Your task to perform on an android device: Open internet settings Image 0: 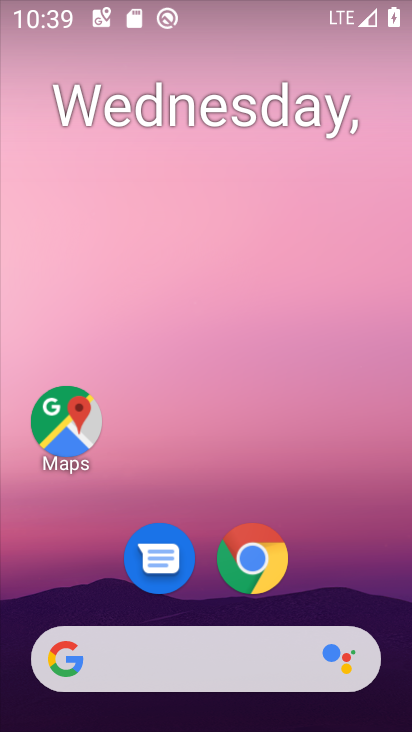
Step 0: drag from (35, 701) to (235, 123)
Your task to perform on an android device: Open internet settings Image 1: 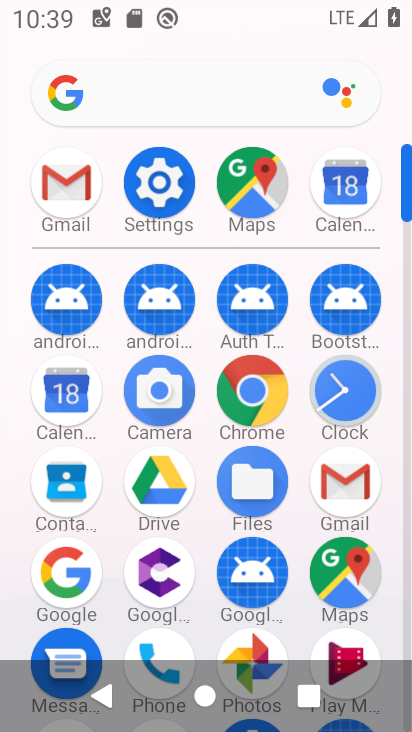
Step 1: click (155, 175)
Your task to perform on an android device: Open internet settings Image 2: 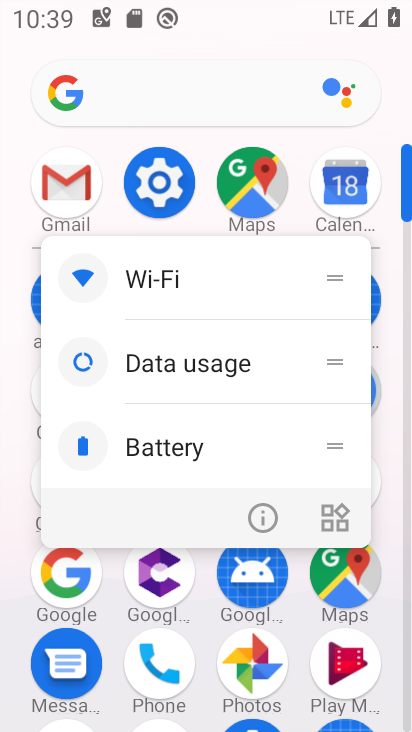
Step 2: click (165, 190)
Your task to perform on an android device: Open internet settings Image 3: 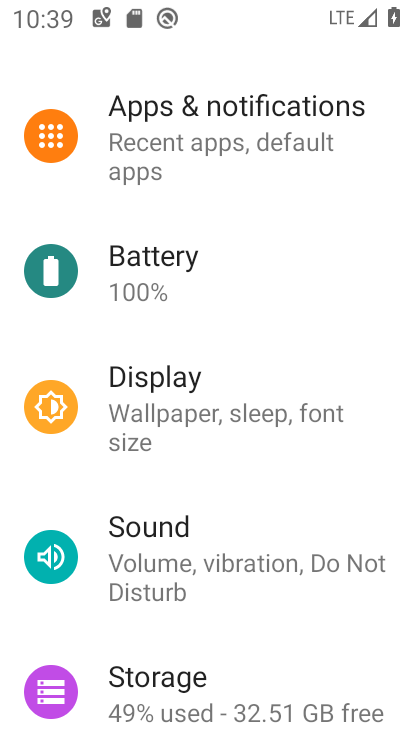
Step 3: drag from (169, 149) to (115, 611)
Your task to perform on an android device: Open internet settings Image 4: 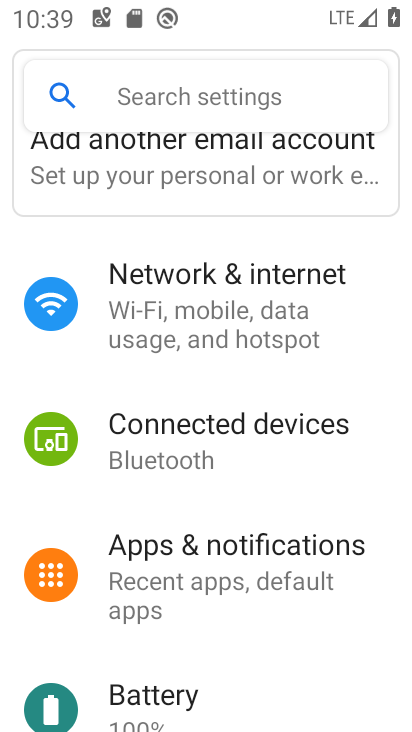
Step 4: click (205, 289)
Your task to perform on an android device: Open internet settings Image 5: 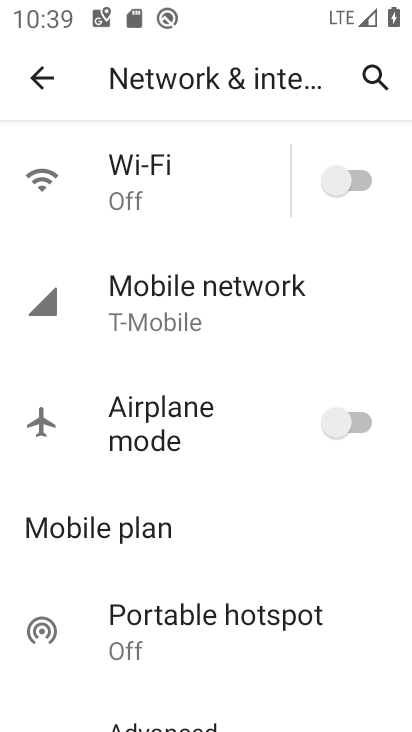
Step 5: task complete